Your task to perform on an android device: Show me popular videos on Youtube Image 0: 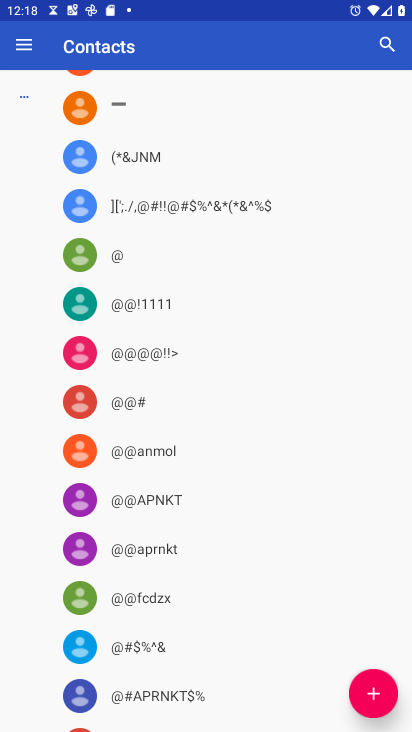
Step 0: press home button
Your task to perform on an android device: Show me popular videos on Youtube Image 1: 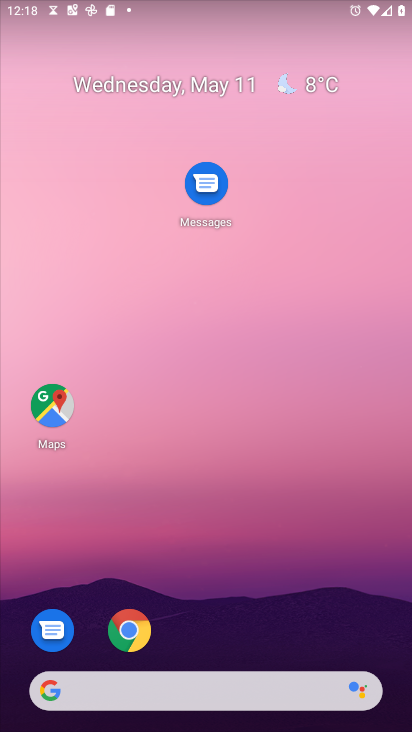
Step 1: drag from (247, 574) to (298, 230)
Your task to perform on an android device: Show me popular videos on Youtube Image 2: 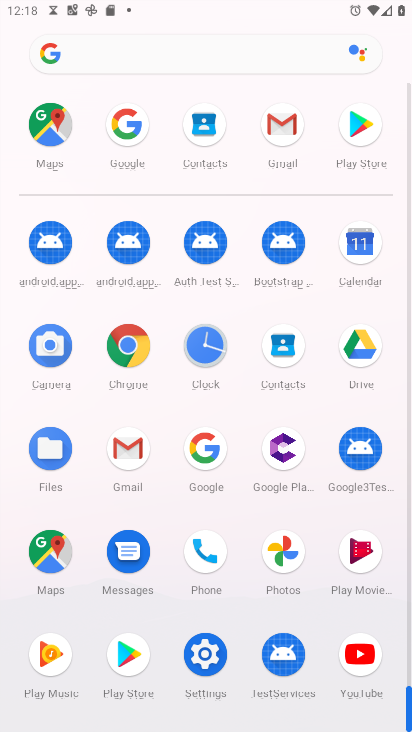
Step 2: click (356, 654)
Your task to perform on an android device: Show me popular videos on Youtube Image 3: 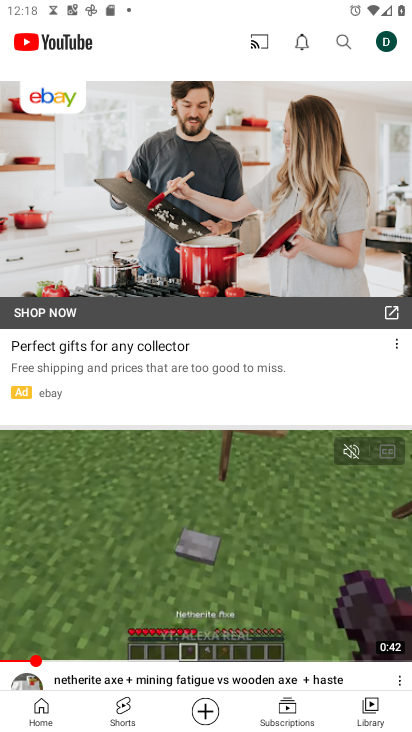
Step 3: click (337, 40)
Your task to perform on an android device: Show me popular videos on Youtube Image 4: 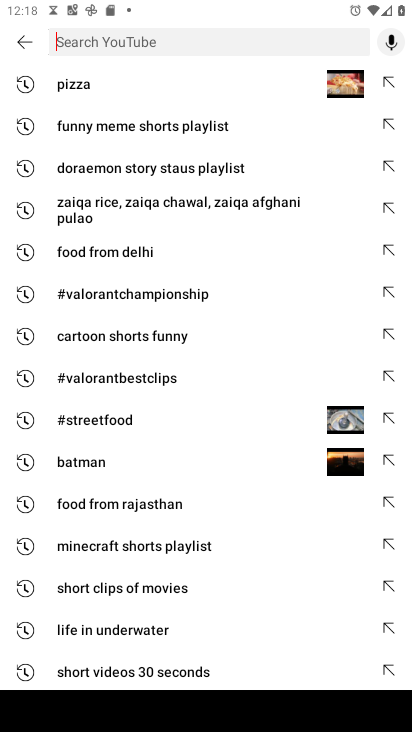
Step 4: type "popular video"
Your task to perform on an android device: Show me popular videos on Youtube Image 5: 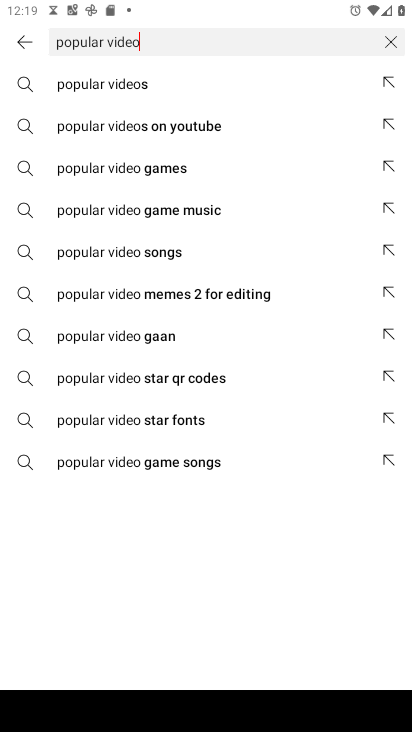
Step 5: click (199, 125)
Your task to perform on an android device: Show me popular videos on Youtube Image 6: 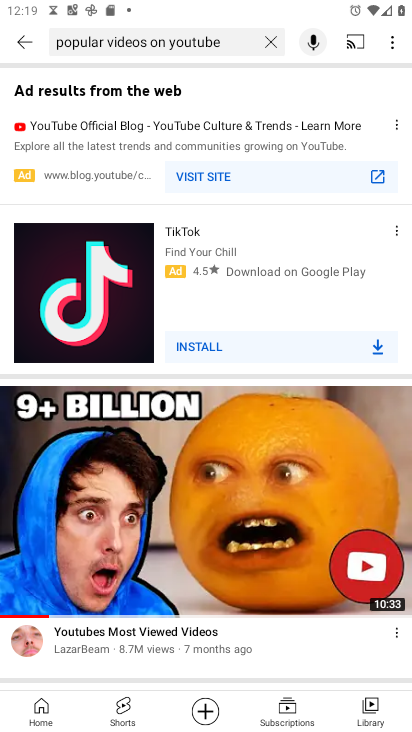
Step 6: drag from (232, 588) to (258, 289)
Your task to perform on an android device: Show me popular videos on Youtube Image 7: 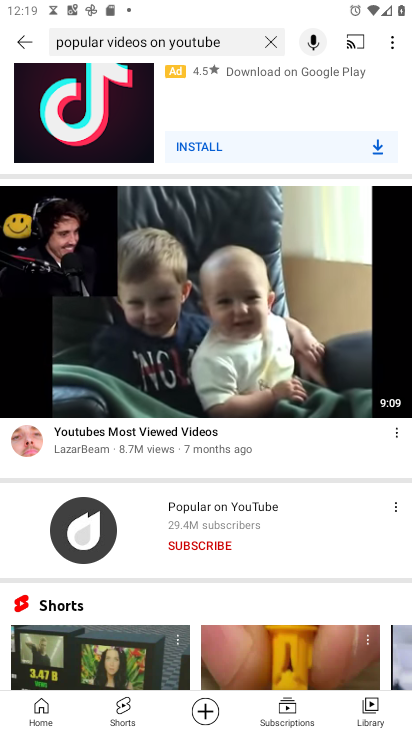
Step 7: drag from (242, 585) to (271, 306)
Your task to perform on an android device: Show me popular videos on Youtube Image 8: 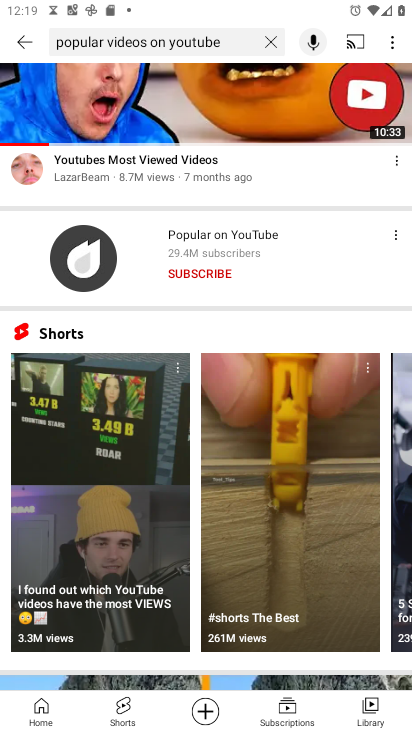
Step 8: drag from (243, 535) to (294, 194)
Your task to perform on an android device: Show me popular videos on Youtube Image 9: 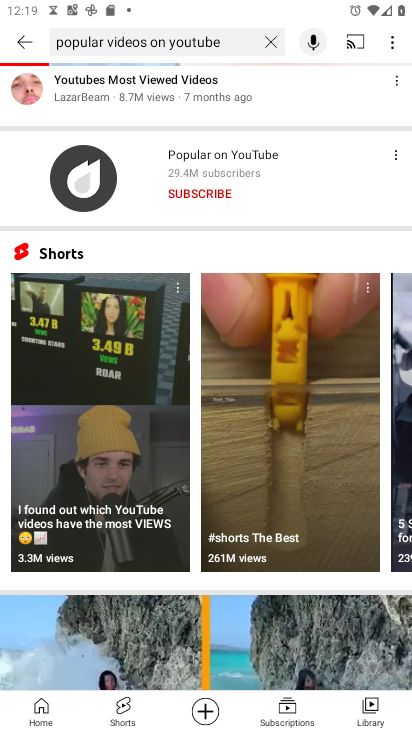
Step 9: drag from (210, 609) to (262, 192)
Your task to perform on an android device: Show me popular videos on Youtube Image 10: 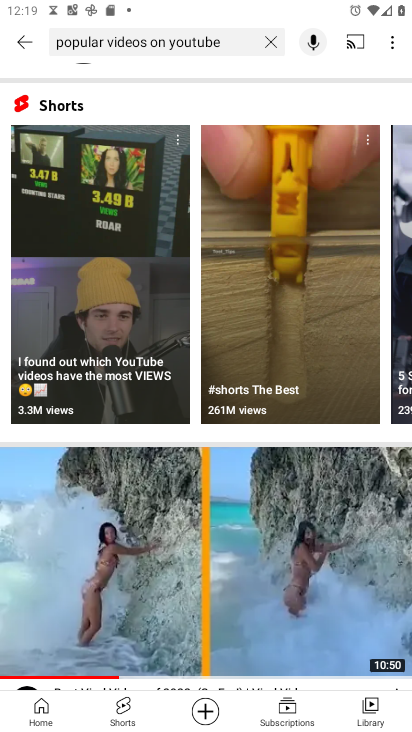
Step 10: drag from (207, 601) to (317, 95)
Your task to perform on an android device: Show me popular videos on Youtube Image 11: 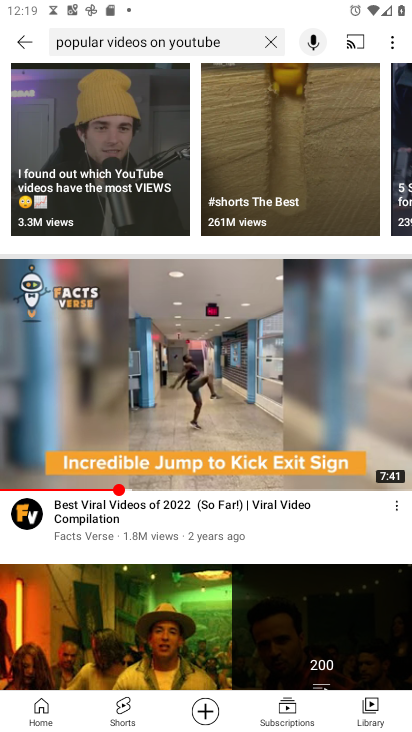
Step 11: click (277, 398)
Your task to perform on an android device: Show me popular videos on Youtube Image 12: 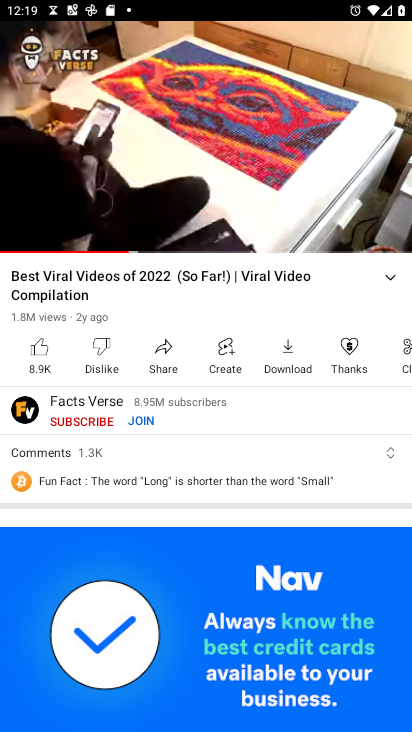
Step 12: task complete